Your task to perform on an android device: toggle translation in the chrome app Image 0: 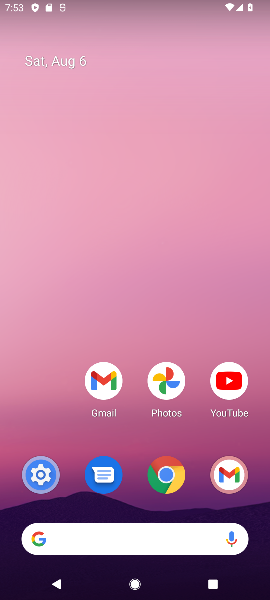
Step 0: click (150, 472)
Your task to perform on an android device: toggle translation in the chrome app Image 1: 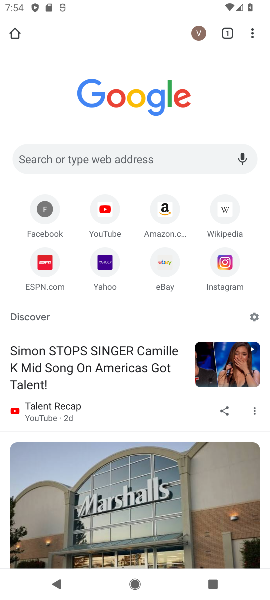
Step 1: click (251, 40)
Your task to perform on an android device: toggle translation in the chrome app Image 2: 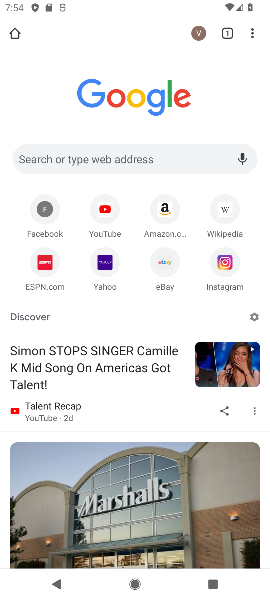
Step 2: drag from (251, 42) to (155, 332)
Your task to perform on an android device: toggle translation in the chrome app Image 3: 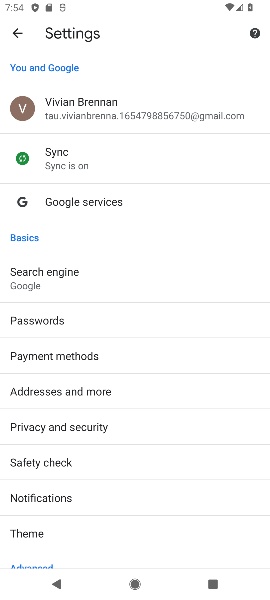
Step 3: drag from (100, 522) to (122, 343)
Your task to perform on an android device: toggle translation in the chrome app Image 4: 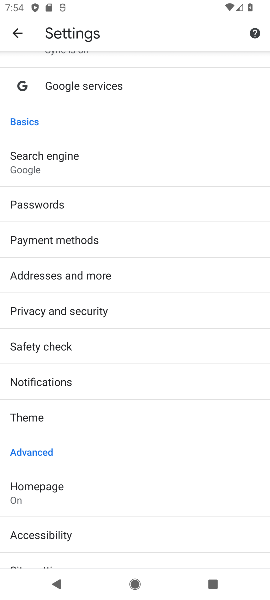
Step 4: drag from (134, 465) to (165, 233)
Your task to perform on an android device: toggle translation in the chrome app Image 5: 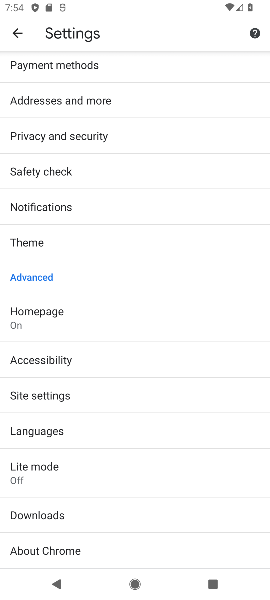
Step 5: click (66, 421)
Your task to perform on an android device: toggle translation in the chrome app Image 6: 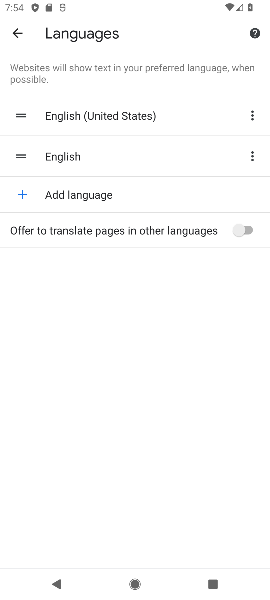
Step 6: click (243, 234)
Your task to perform on an android device: toggle translation in the chrome app Image 7: 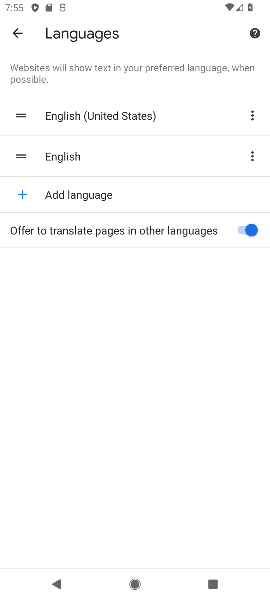
Step 7: task complete